Your task to perform on an android device: turn off notifications in google photos Image 0: 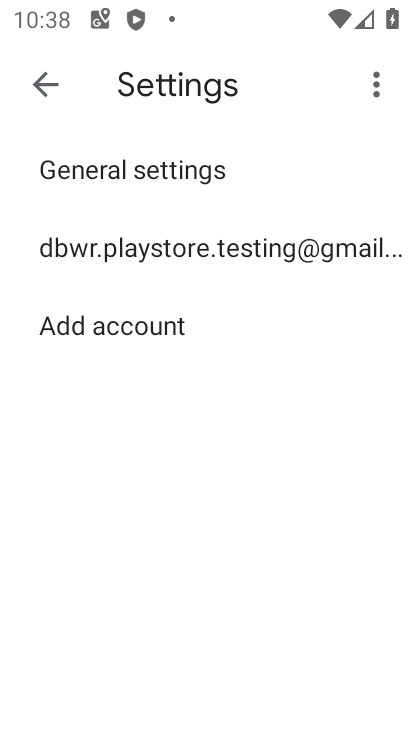
Step 0: click (86, 169)
Your task to perform on an android device: turn off notifications in google photos Image 1: 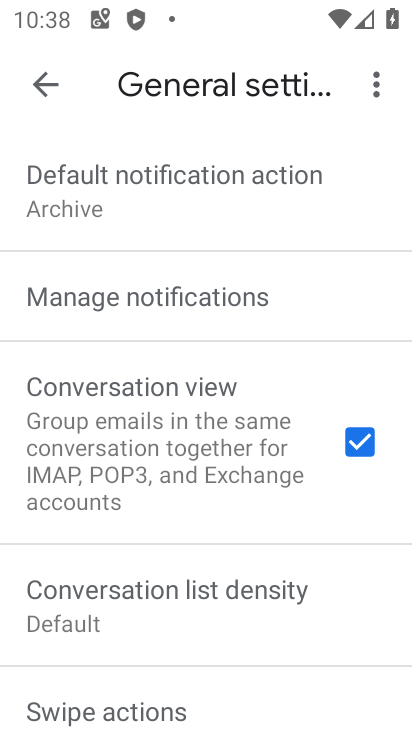
Step 1: click (157, 284)
Your task to perform on an android device: turn off notifications in google photos Image 2: 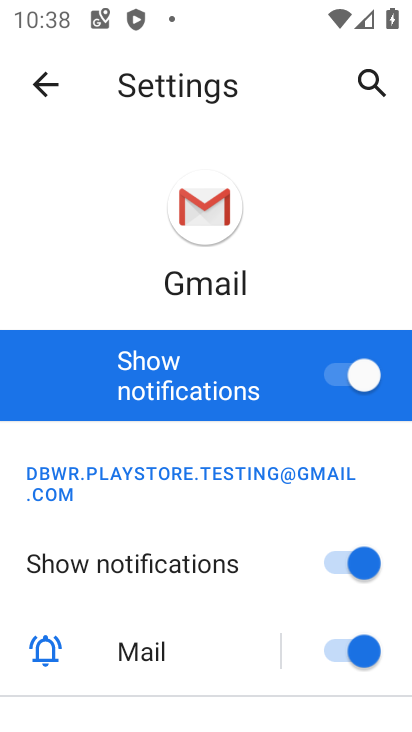
Step 2: click (335, 368)
Your task to perform on an android device: turn off notifications in google photos Image 3: 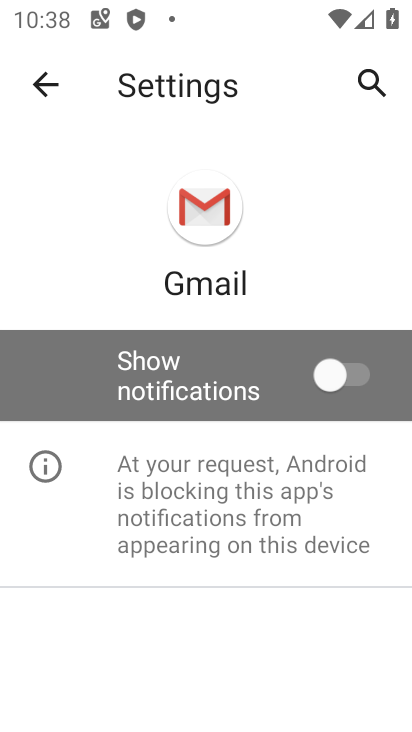
Step 3: task complete